Your task to perform on an android device: change alarm snooze length Image 0: 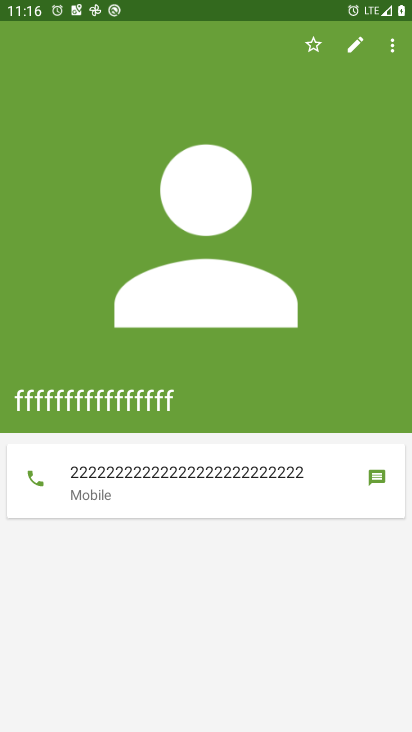
Step 0: press home button
Your task to perform on an android device: change alarm snooze length Image 1: 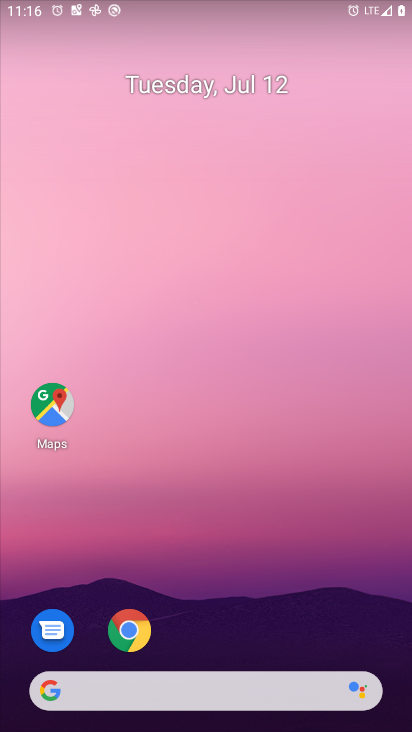
Step 1: drag from (218, 633) to (322, 35)
Your task to perform on an android device: change alarm snooze length Image 2: 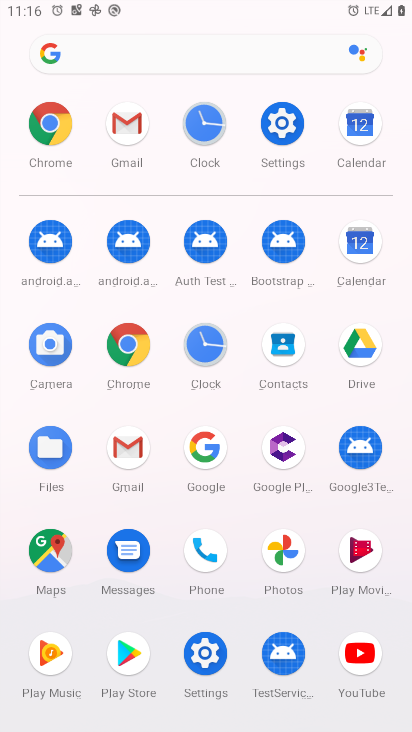
Step 2: click (204, 131)
Your task to perform on an android device: change alarm snooze length Image 3: 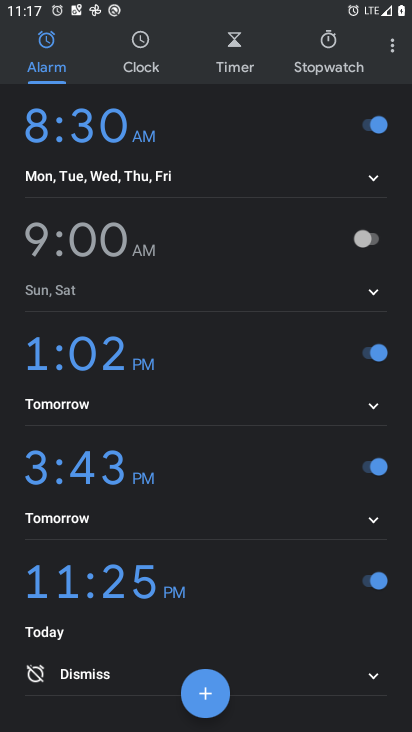
Step 3: click (394, 43)
Your task to perform on an android device: change alarm snooze length Image 4: 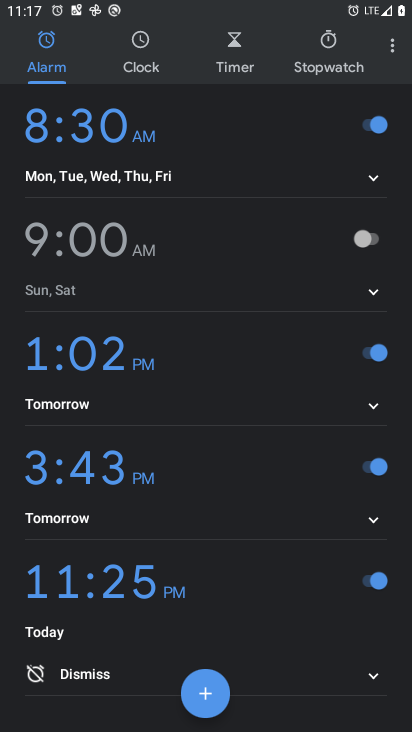
Step 4: click (394, 48)
Your task to perform on an android device: change alarm snooze length Image 5: 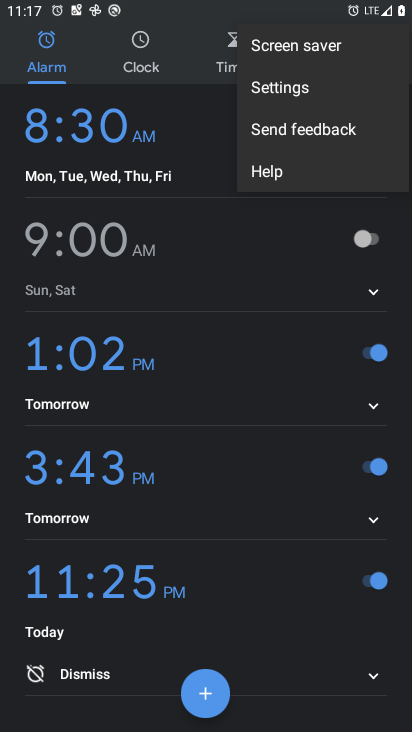
Step 5: click (285, 86)
Your task to perform on an android device: change alarm snooze length Image 6: 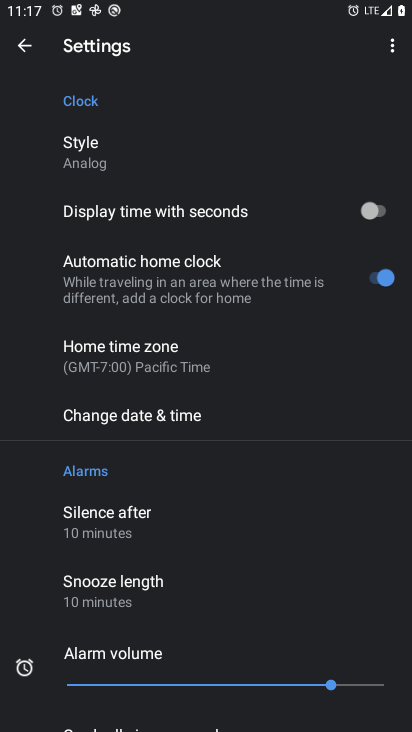
Step 6: click (115, 584)
Your task to perform on an android device: change alarm snooze length Image 7: 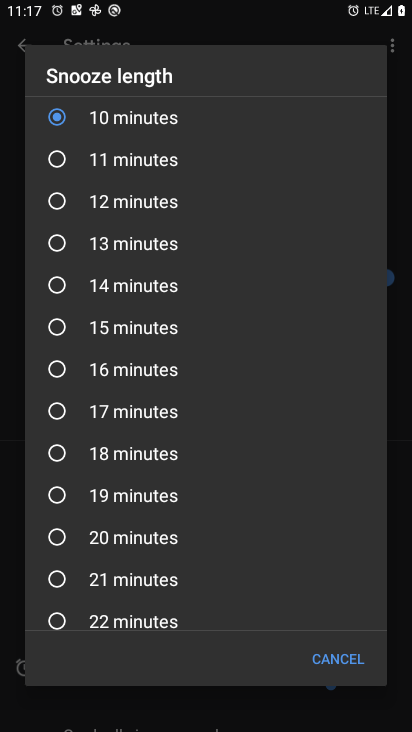
Step 7: click (57, 372)
Your task to perform on an android device: change alarm snooze length Image 8: 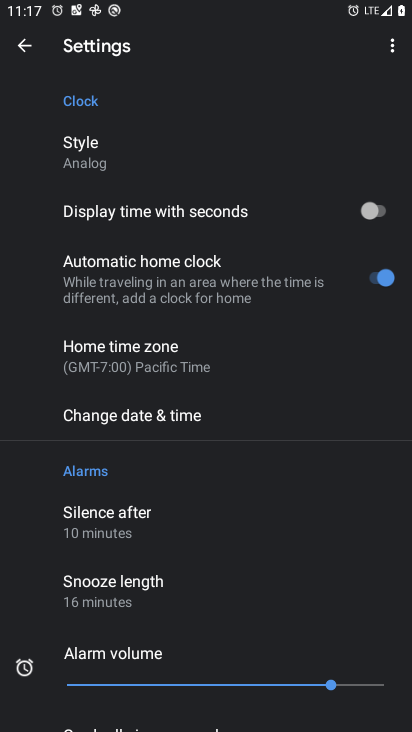
Step 8: task complete